Your task to perform on an android device: uninstall "LiveIn - Share Your Moment" Image 0: 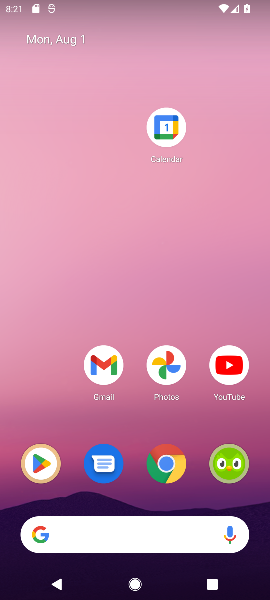
Step 0: click (32, 465)
Your task to perform on an android device: uninstall "LiveIn - Share Your Moment" Image 1: 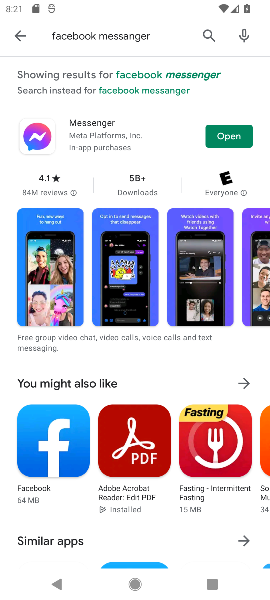
Step 1: click (211, 41)
Your task to perform on an android device: uninstall "LiveIn - Share Your Moment" Image 2: 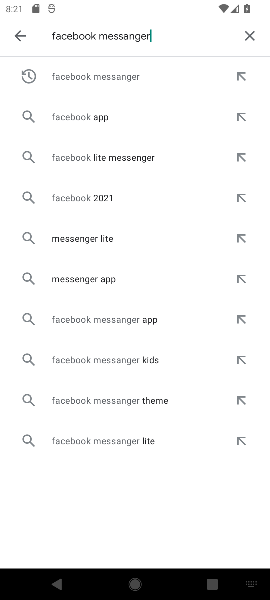
Step 2: click (247, 42)
Your task to perform on an android device: uninstall "LiveIn - Share Your Moment" Image 3: 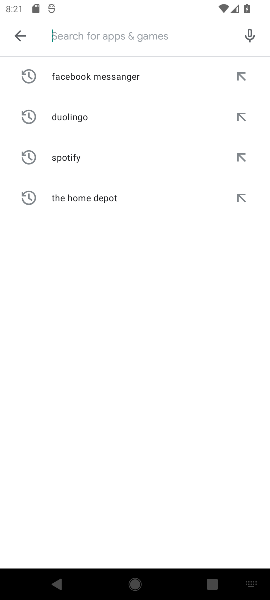
Step 3: type "livein"
Your task to perform on an android device: uninstall "LiveIn - Share Your Moment" Image 4: 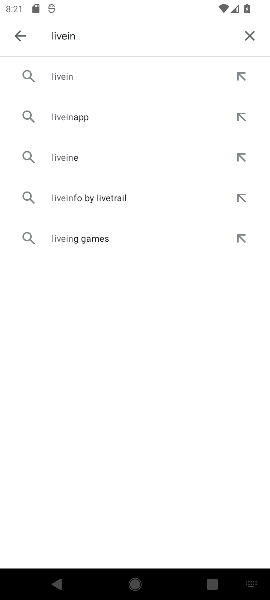
Step 4: click (127, 77)
Your task to perform on an android device: uninstall "LiveIn - Share Your Moment" Image 5: 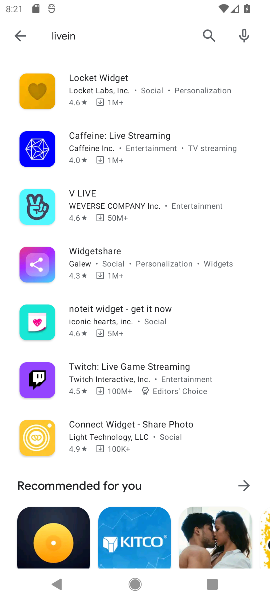
Step 5: task complete